Your task to perform on an android device: open chrome and create a bookmark for the current page Image 0: 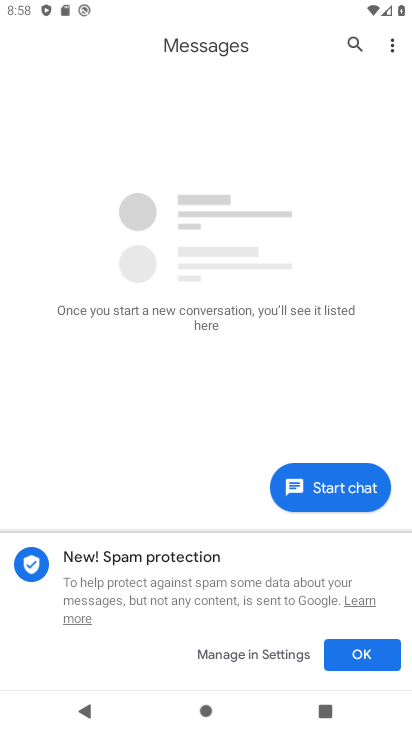
Step 0: press home button
Your task to perform on an android device: open chrome and create a bookmark for the current page Image 1: 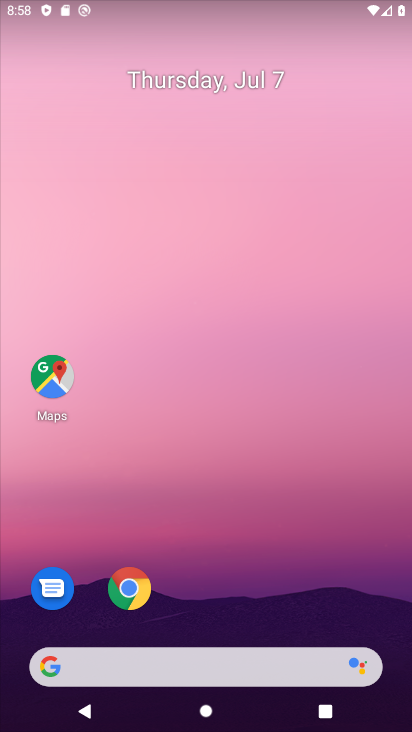
Step 1: click (126, 597)
Your task to perform on an android device: open chrome and create a bookmark for the current page Image 2: 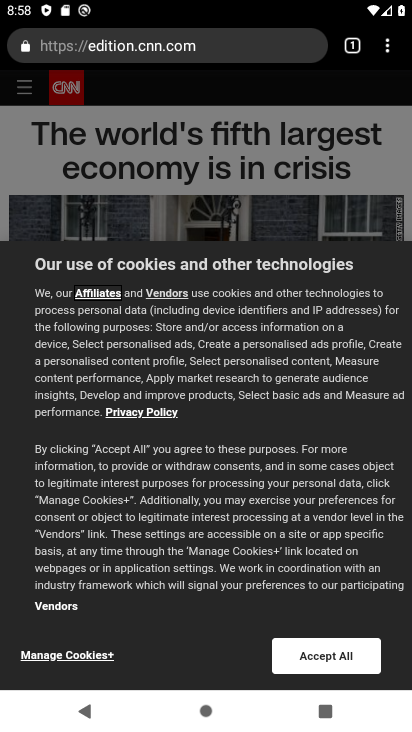
Step 2: click (385, 43)
Your task to perform on an android device: open chrome and create a bookmark for the current page Image 3: 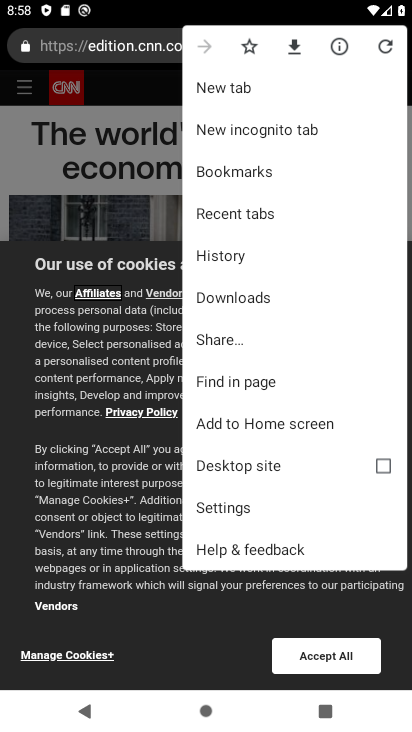
Step 3: click (249, 44)
Your task to perform on an android device: open chrome and create a bookmark for the current page Image 4: 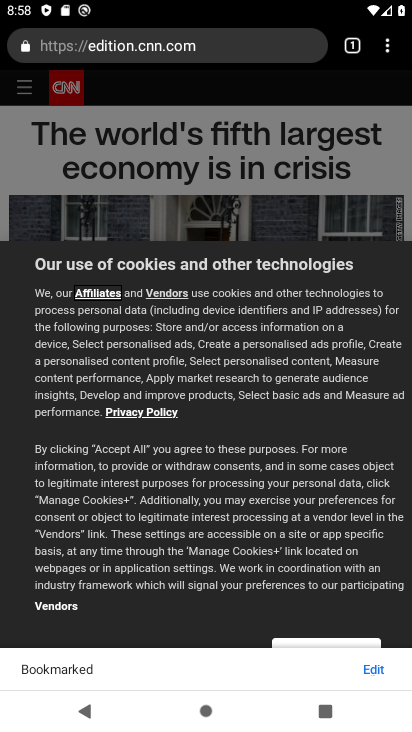
Step 4: task complete